Your task to perform on an android device: move an email to a new category in the gmail app Image 0: 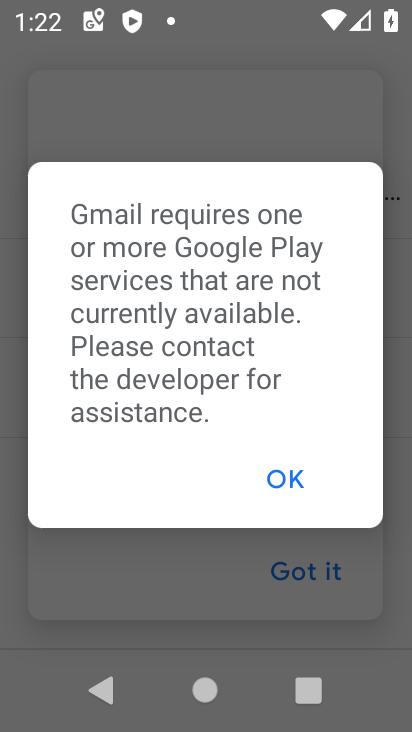
Step 0: press home button
Your task to perform on an android device: move an email to a new category in the gmail app Image 1: 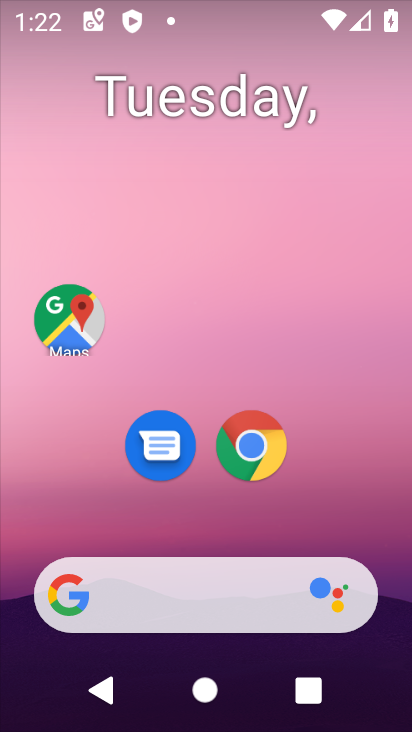
Step 1: drag from (327, 474) to (310, 7)
Your task to perform on an android device: move an email to a new category in the gmail app Image 2: 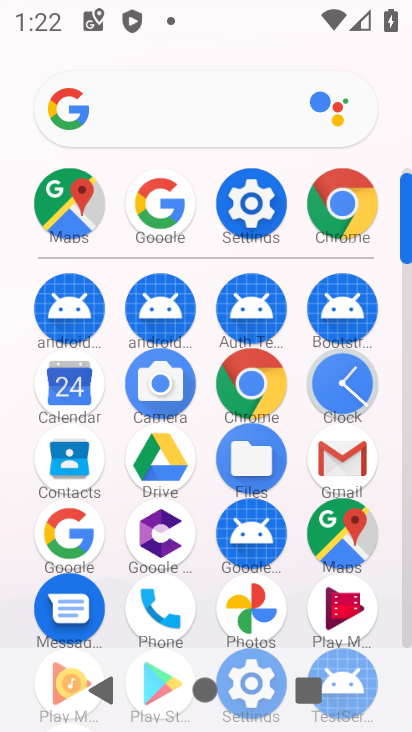
Step 2: click (336, 458)
Your task to perform on an android device: move an email to a new category in the gmail app Image 3: 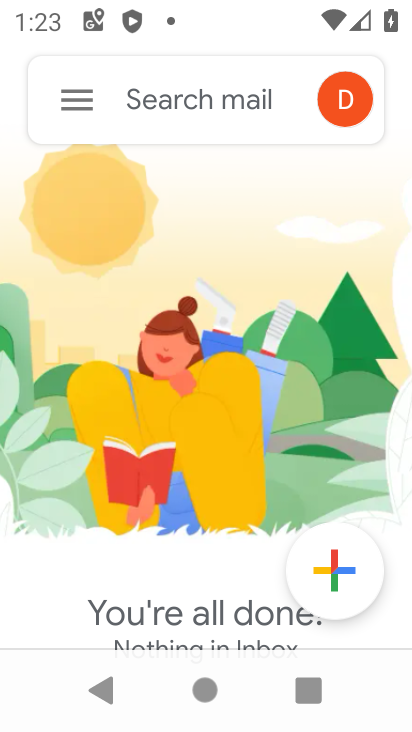
Step 3: click (67, 103)
Your task to perform on an android device: move an email to a new category in the gmail app Image 4: 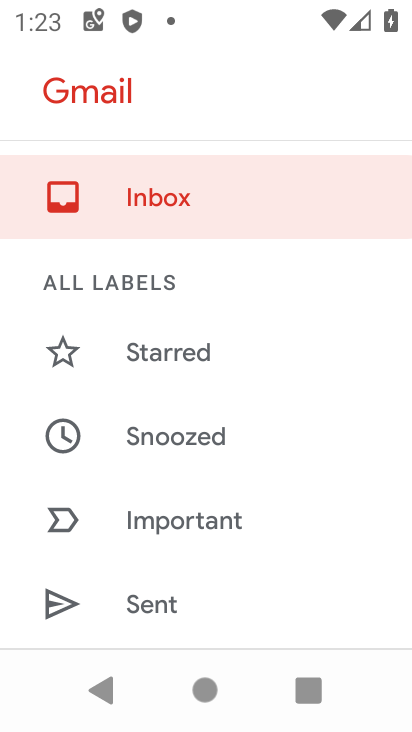
Step 4: drag from (56, 480) to (93, 187)
Your task to perform on an android device: move an email to a new category in the gmail app Image 5: 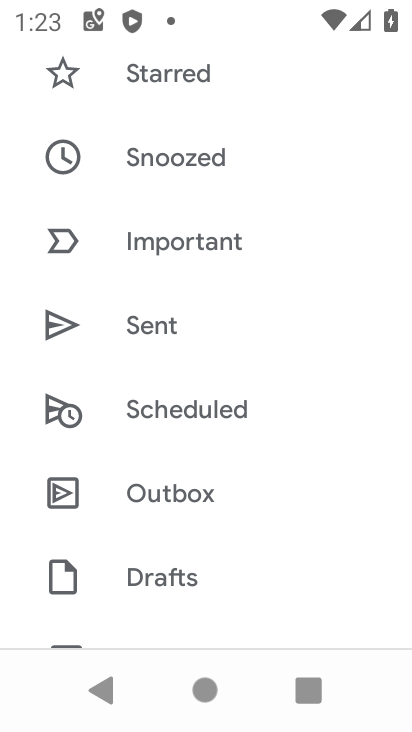
Step 5: drag from (82, 143) to (99, 551)
Your task to perform on an android device: move an email to a new category in the gmail app Image 6: 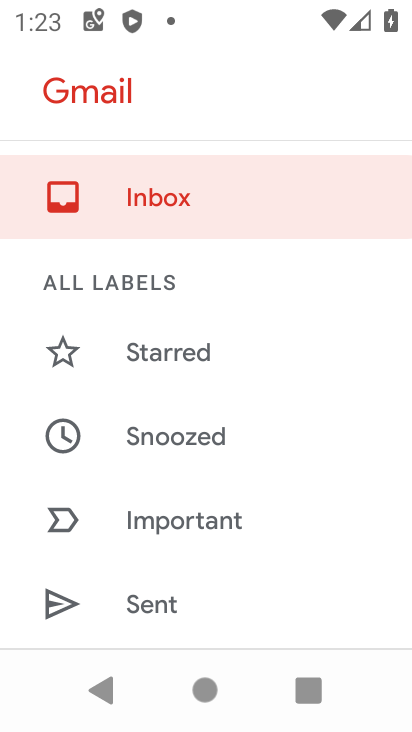
Step 6: click (184, 212)
Your task to perform on an android device: move an email to a new category in the gmail app Image 7: 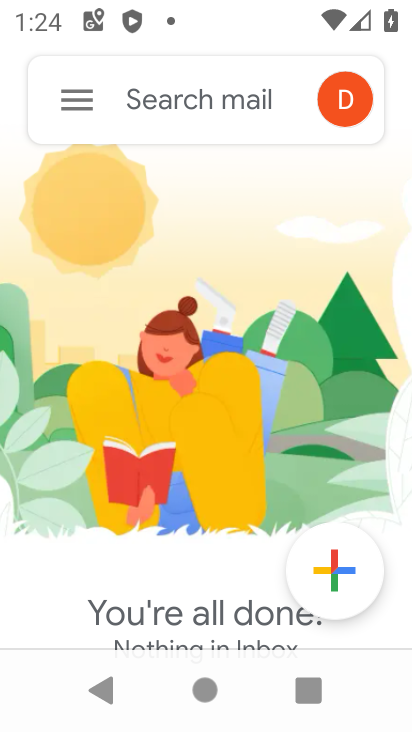
Step 7: task complete